Your task to perform on an android device: open sync settings in chrome Image 0: 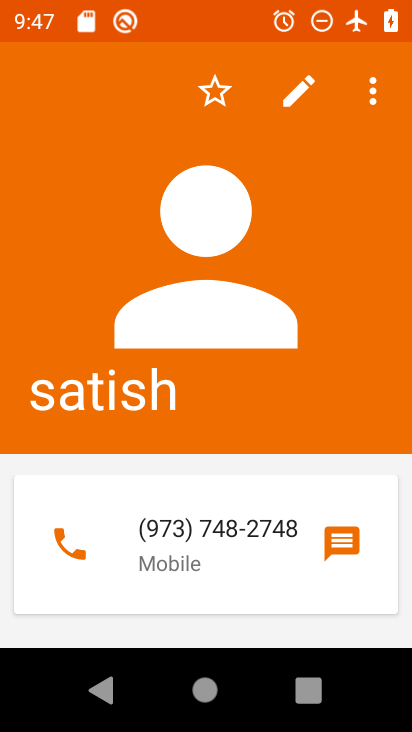
Step 0: press home button
Your task to perform on an android device: open sync settings in chrome Image 1: 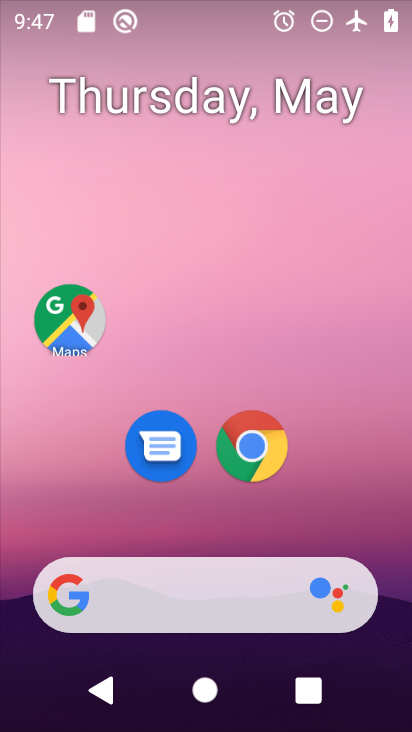
Step 1: drag from (373, 545) to (339, 144)
Your task to perform on an android device: open sync settings in chrome Image 2: 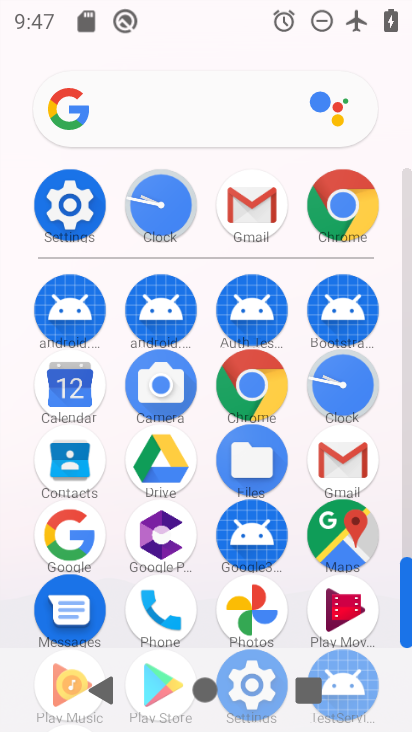
Step 2: click (262, 362)
Your task to perform on an android device: open sync settings in chrome Image 3: 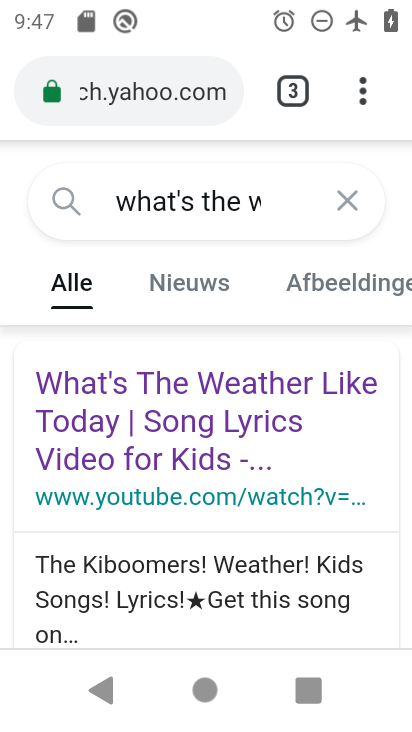
Step 3: drag from (356, 104) to (180, 481)
Your task to perform on an android device: open sync settings in chrome Image 4: 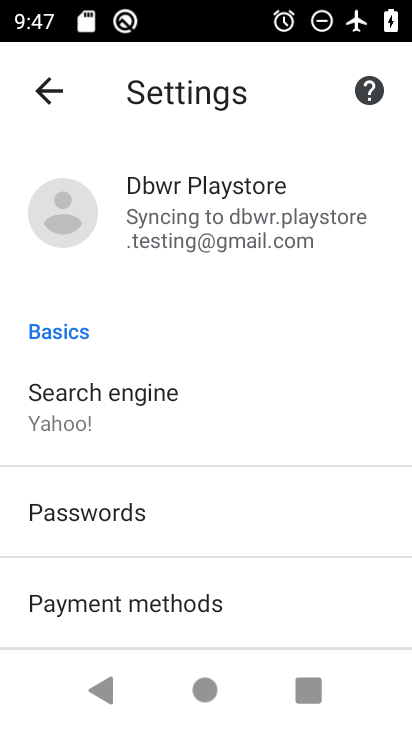
Step 4: drag from (232, 591) to (287, 271)
Your task to perform on an android device: open sync settings in chrome Image 5: 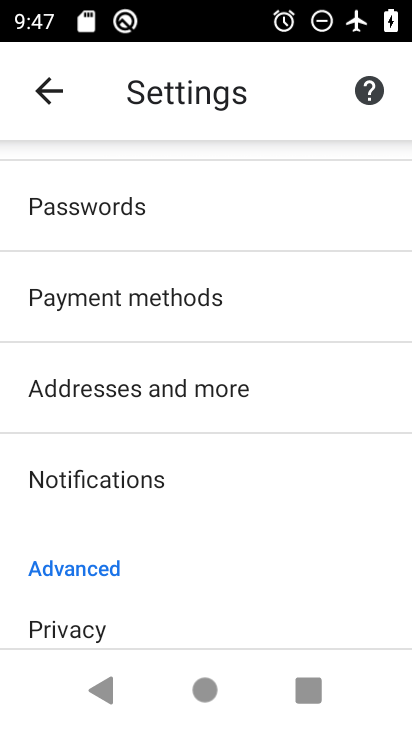
Step 5: drag from (237, 571) to (271, 260)
Your task to perform on an android device: open sync settings in chrome Image 6: 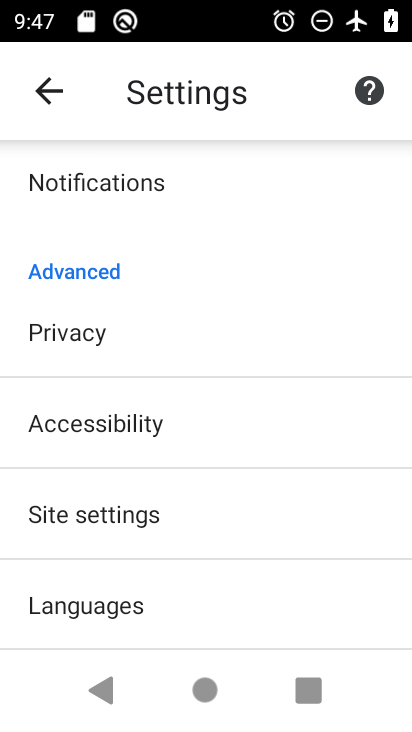
Step 6: click (163, 507)
Your task to perform on an android device: open sync settings in chrome Image 7: 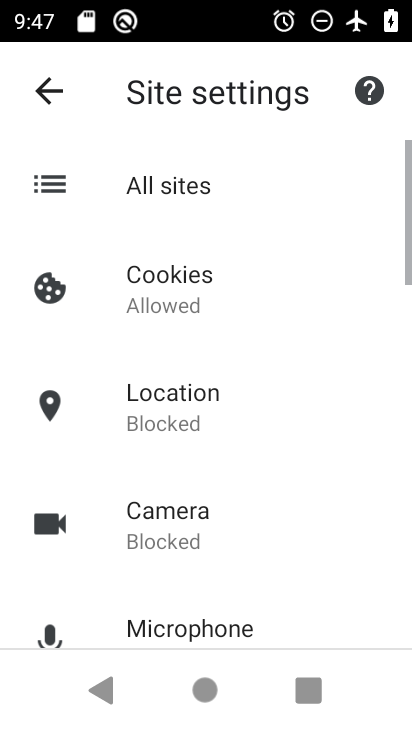
Step 7: drag from (256, 578) to (275, 274)
Your task to perform on an android device: open sync settings in chrome Image 8: 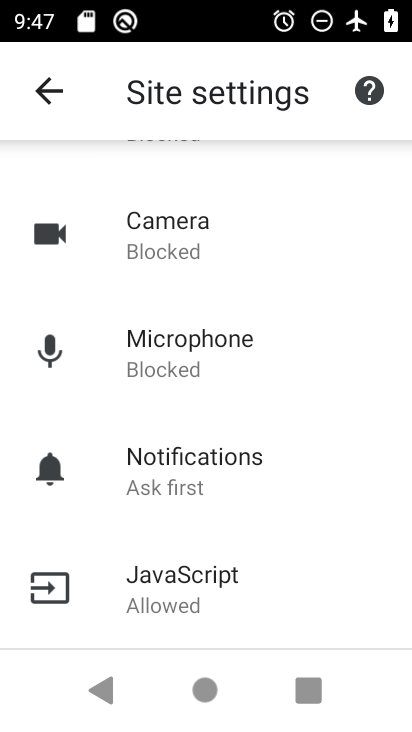
Step 8: drag from (266, 495) to (322, 210)
Your task to perform on an android device: open sync settings in chrome Image 9: 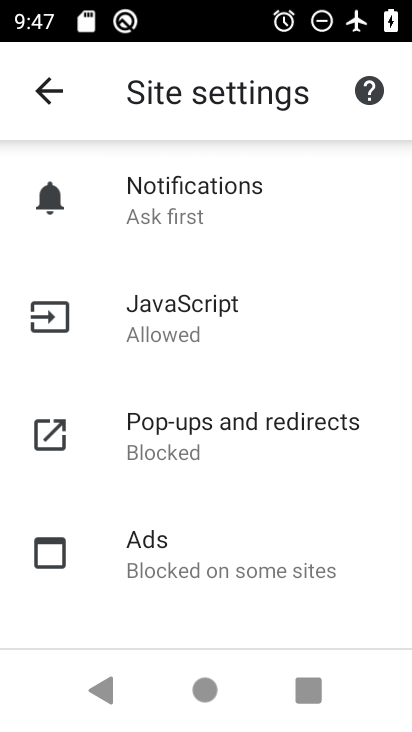
Step 9: drag from (292, 472) to (287, 290)
Your task to perform on an android device: open sync settings in chrome Image 10: 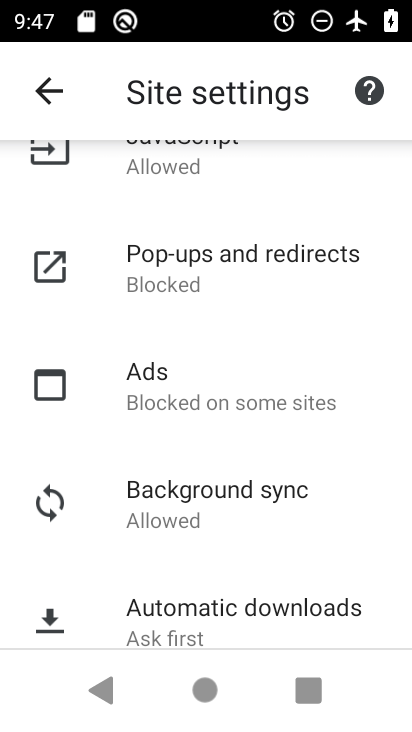
Step 10: click (261, 501)
Your task to perform on an android device: open sync settings in chrome Image 11: 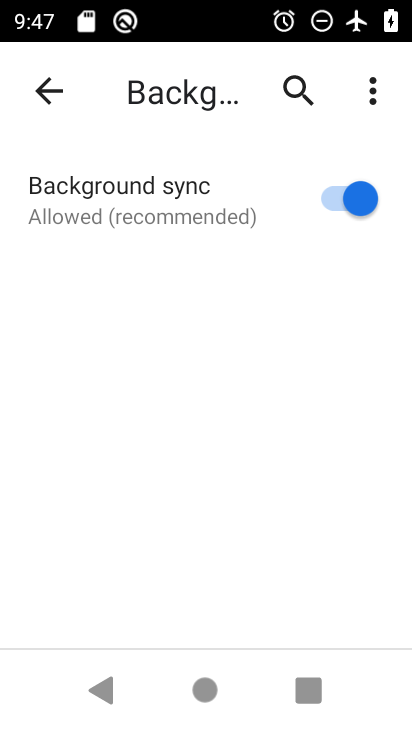
Step 11: task complete